Your task to perform on an android device: Do I have any events today? Image 0: 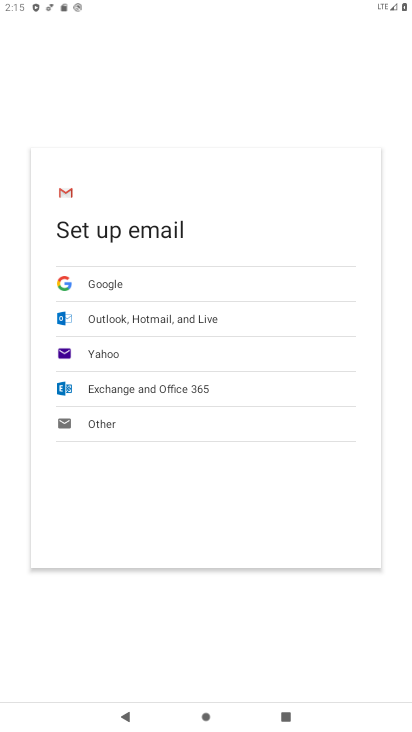
Step 0: press home button
Your task to perform on an android device: Do I have any events today? Image 1: 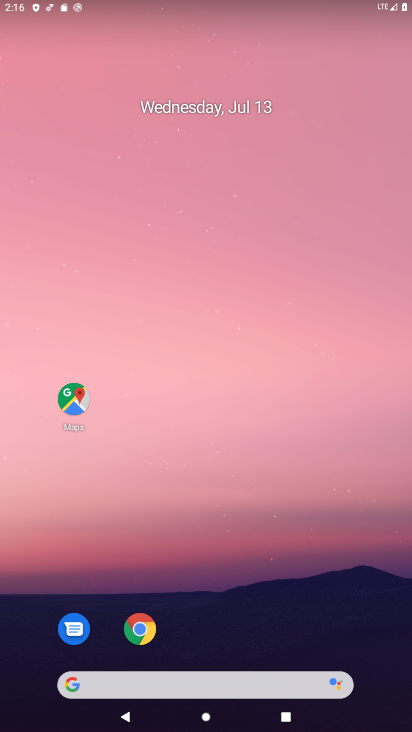
Step 1: drag from (229, 570) to (256, 56)
Your task to perform on an android device: Do I have any events today? Image 2: 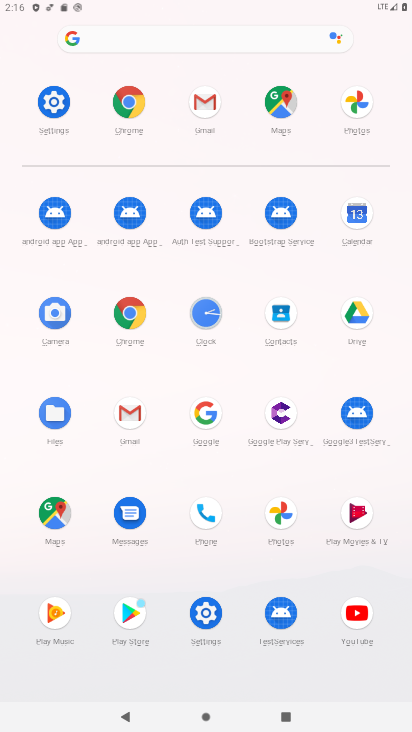
Step 2: click (354, 237)
Your task to perform on an android device: Do I have any events today? Image 3: 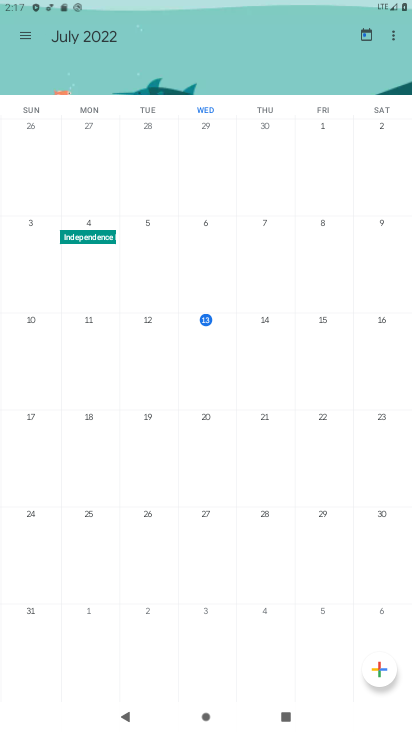
Step 3: task complete